Your task to perform on an android device: toggle data saver in the chrome app Image 0: 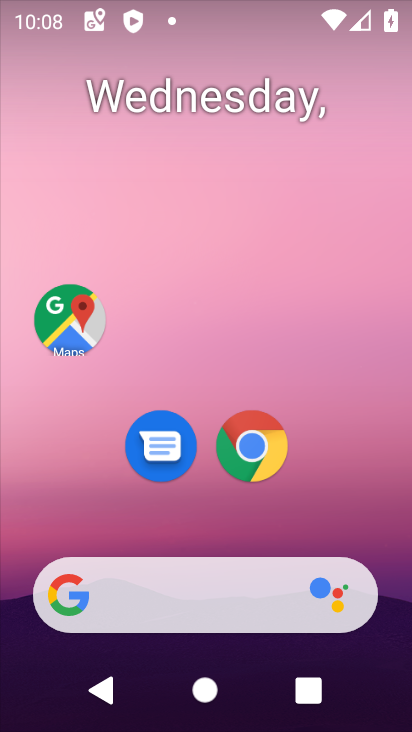
Step 0: drag from (252, 529) to (174, 0)
Your task to perform on an android device: toggle data saver in the chrome app Image 1: 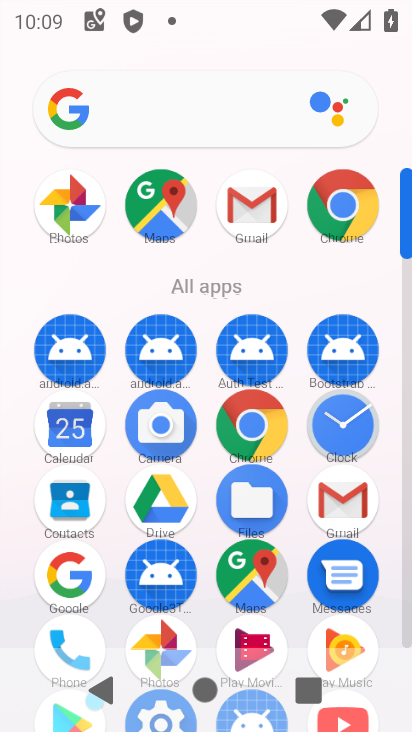
Step 1: click (341, 196)
Your task to perform on an android device: toggle data saver in the chrome app Image 2: 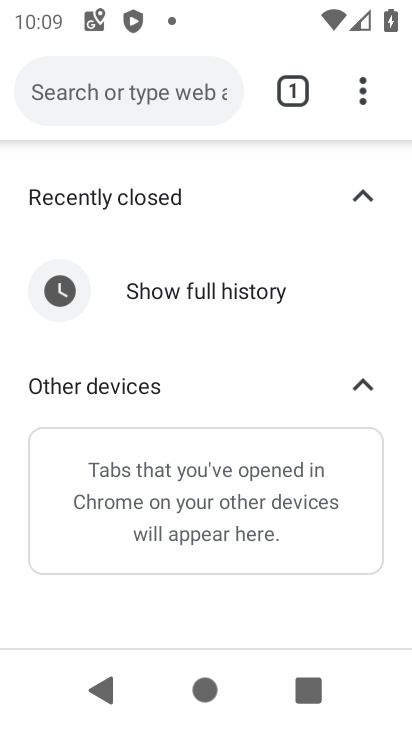
Step 2: click (363, 104)
Your task to perform on an android device: toggle data saver in the chrome app Image 3: 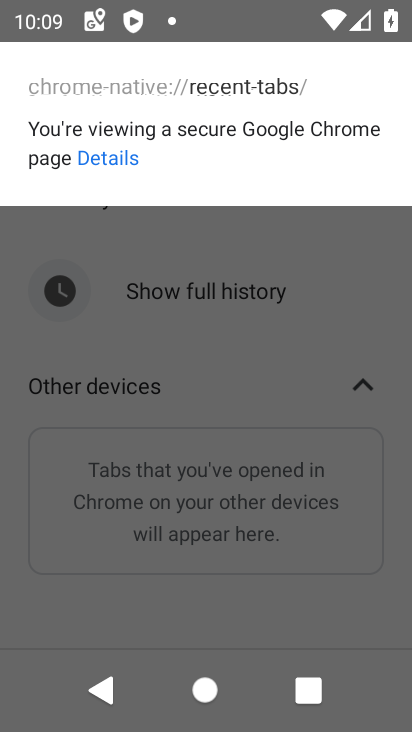
Step 3: click (314, 250)
Your task to perform on an android device: toggle data saver in the chrome app Image 4: 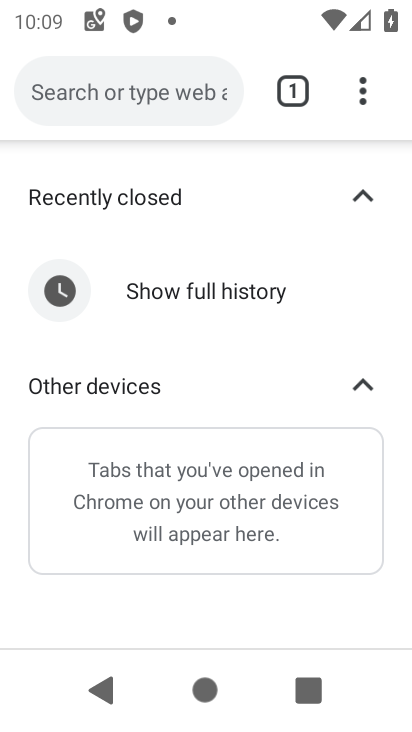
Step 4: click (357, 96)
Your task to perform on an android device: toggle data saver in the chrome app Image 5: 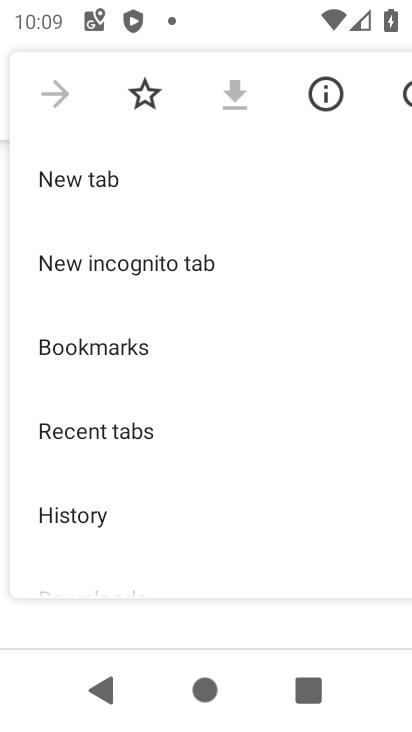
Step 5: drag from (185, 516) to (210, 73)
Your task to perform on an android device: toggle data saver in the chrome app Image 6: 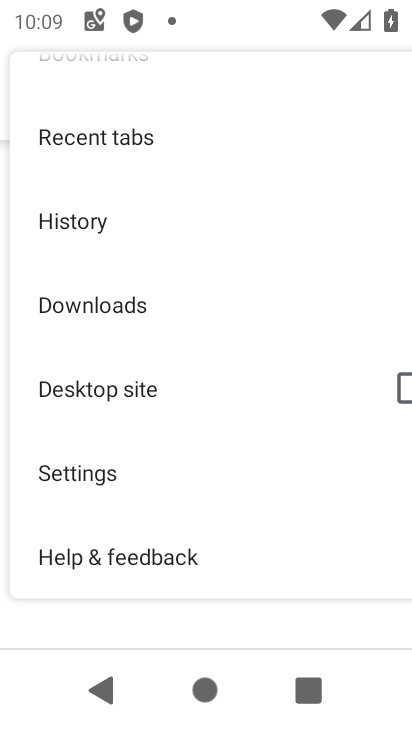
Step 6: click (94, 478)
Your task to perform on an android device: toggle data saver in the chrome app Image 7: 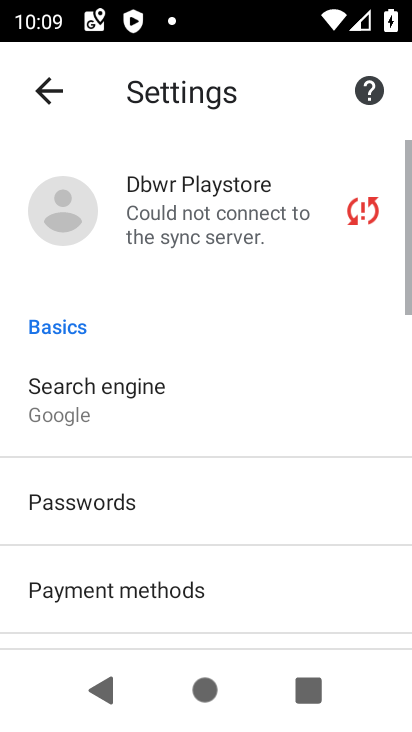
Step 7: drag from (131, 516) to (220, 141)
Your task to perform on an android device: toggle data saver in the chrome app Image 8: 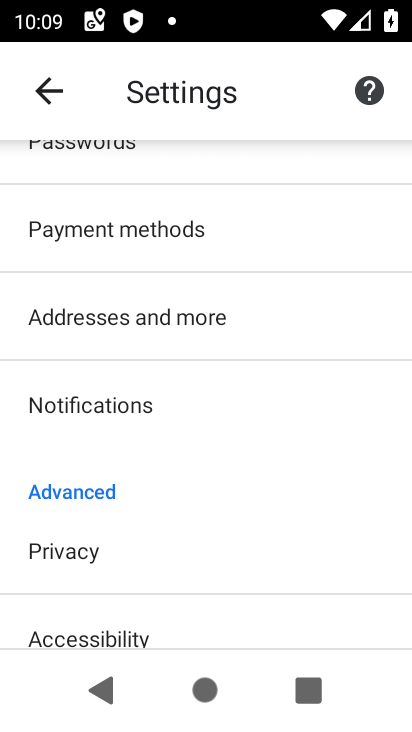
Step 8: drag from (153, 541) to (201, 315)
Your task to perform on an android device: toggle data saver in the chrome app Image 9: 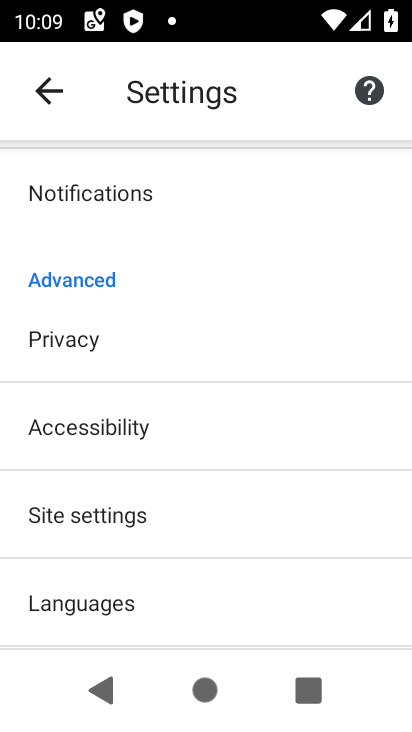
Step 9: drag from (146, 555) to (175, 341)
Your task to perform on an android device: toggle data saver in the chrome app Image 10: 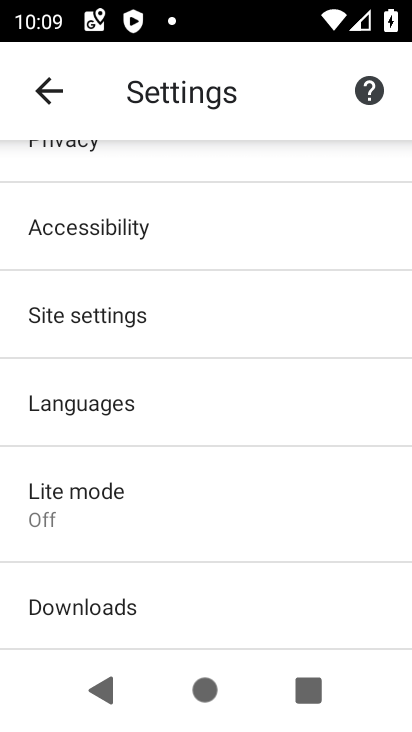
Step 10: click (102, 514)
Your task to perform on an android device: toggle data saver in the chrome app Image 11: 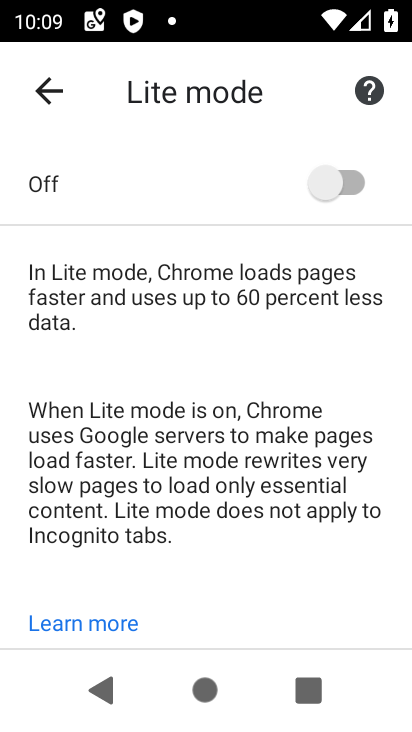
Step 11: click (352, 176)
Your task to perform on an android device: toggle data saver in the chrome app Image 12: 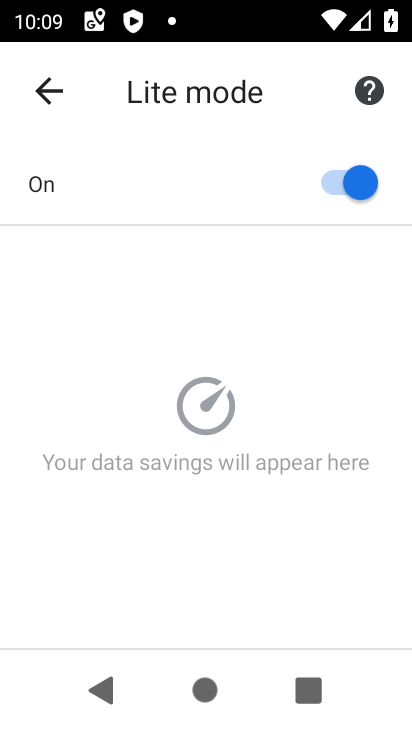
Step 12: task complete